Your task to perform on an android device: Toggle the flashlight Image 0: 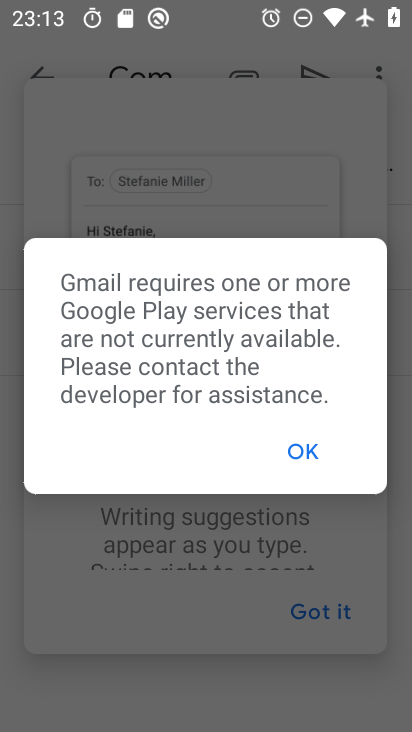
Step 0: press home button
Your task to perform on an android device: Toggle the flashlight Image 1: 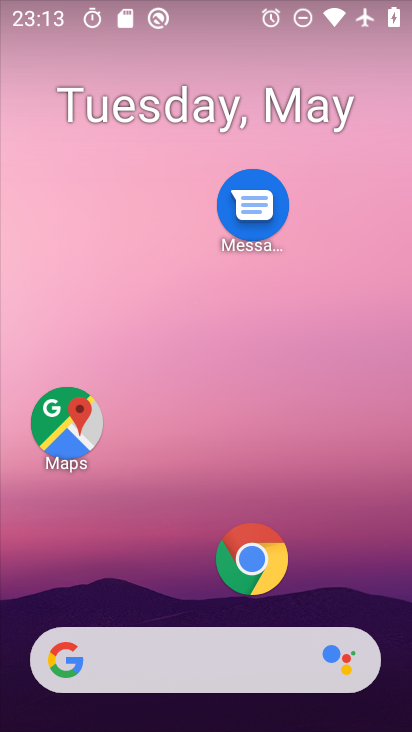
Step 1: drag from (178, 599) to (185, 153)
Your task to perform on an android device: Toggle the flashlight Image 2: 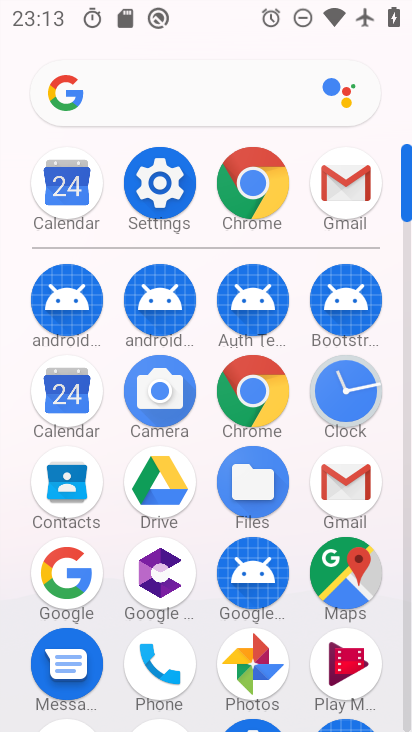
Step 2: click (183, 158)
Your task to perform on an android device: Toggle the flashlight Image 3: 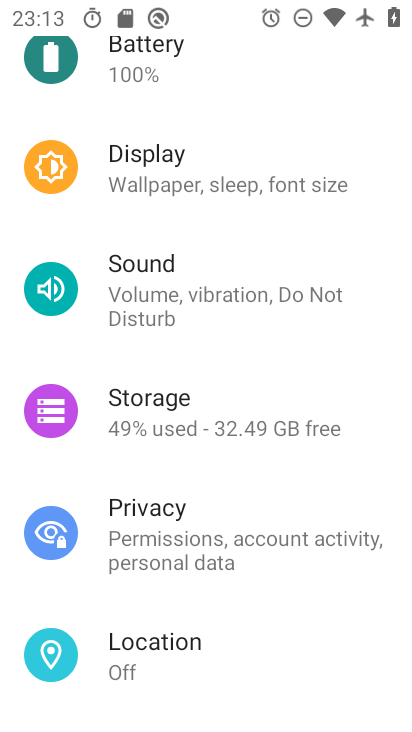
Step 3: task complete